Your task to perform on an android device: toggle location history Image 0: 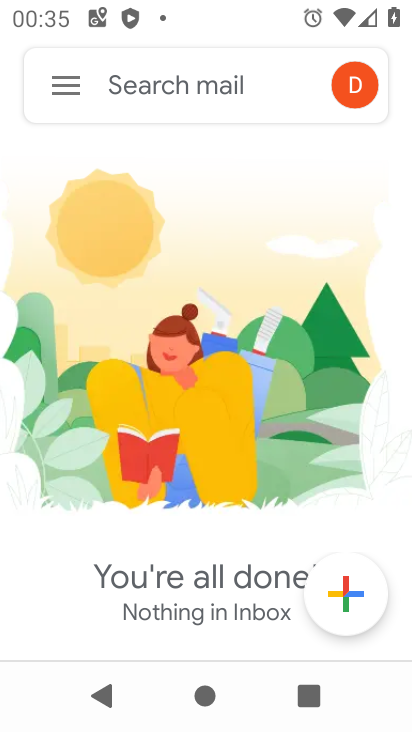
Step 0: press home button
Your task to perform on an android device: toggle location history Image 1: 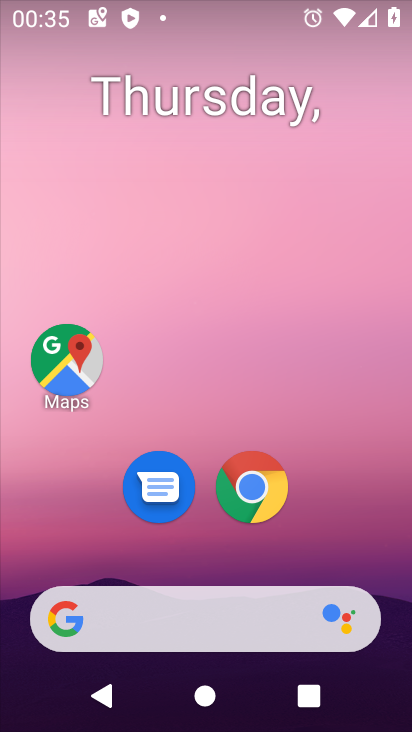
Step 1: click (69, 359)
Your task to perform on an android device: toggle location history Image 2: 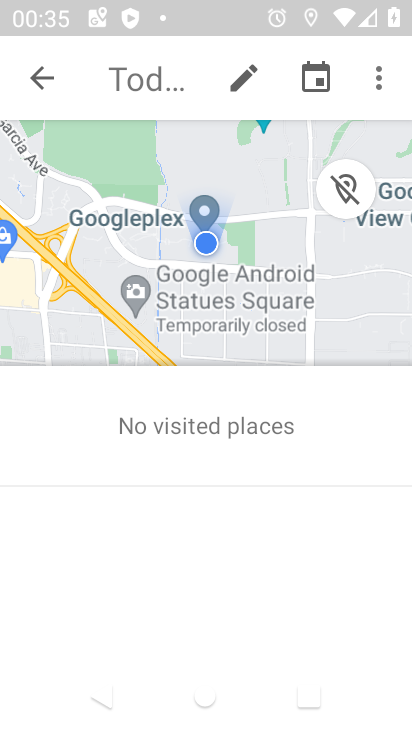
Step 2: click (375, 77)
Your task to perform on an android device: toggle location history Image 3: 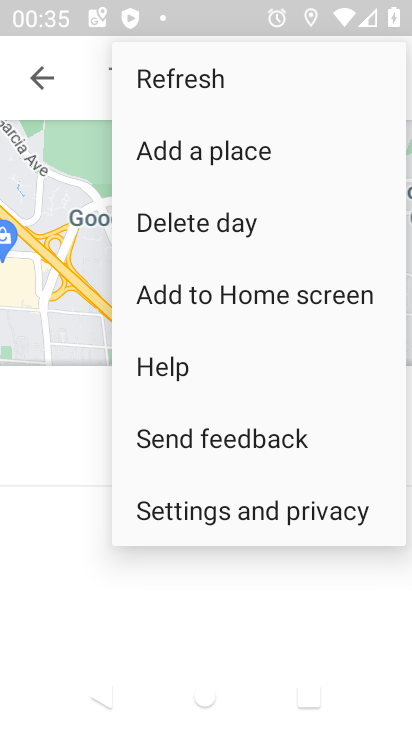
Step 3: click (167, 501)
Your task to perform on an android device: toggle location history Image 4: 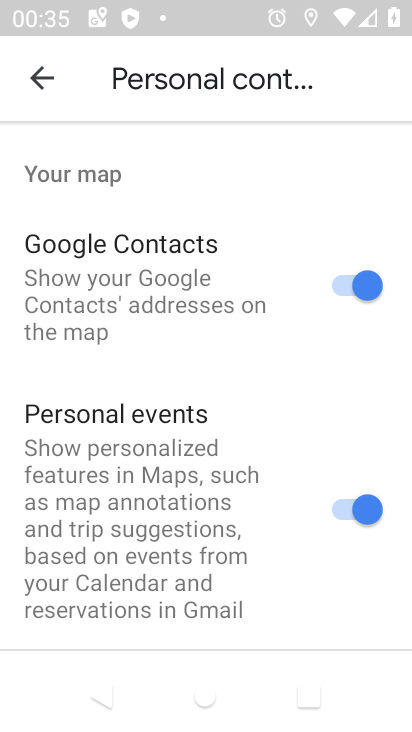
Step 4: drag from (167, 501) to (257, 59)
Your task to perform on an android device: toggle location history Image 5: 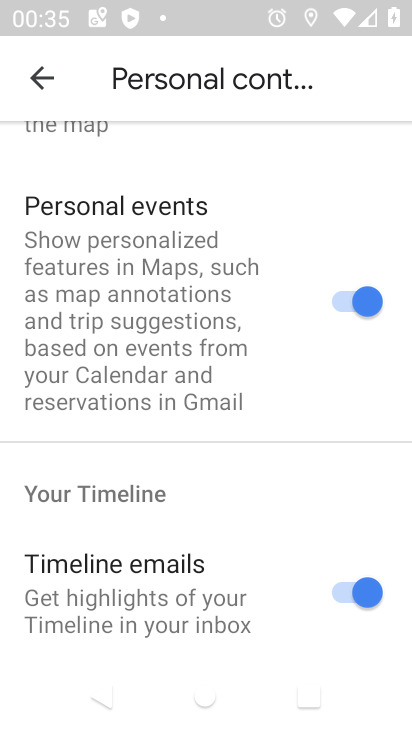
Step 5: drag from (272, 601) to (327, 0)
Your task to perform on an android device: toggle location history Image 6: 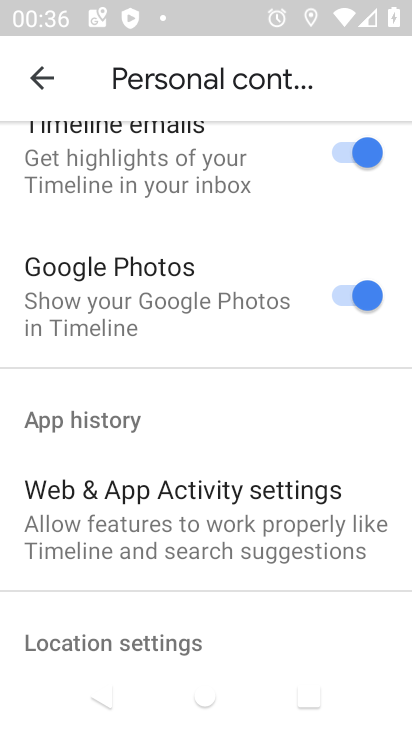
Step 6: drag from (356, 552) to (383, 3)
Your task to perform on an android device: toggle location history Image 7: 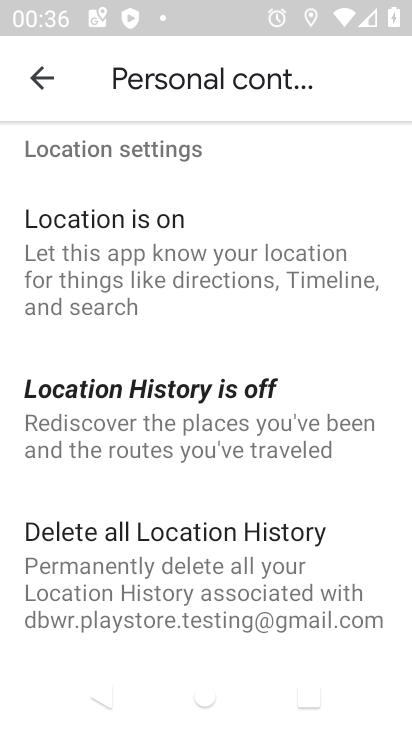
Step 7: click (139, 417)
Your task to perform on an android device: toggle location history Image 8: 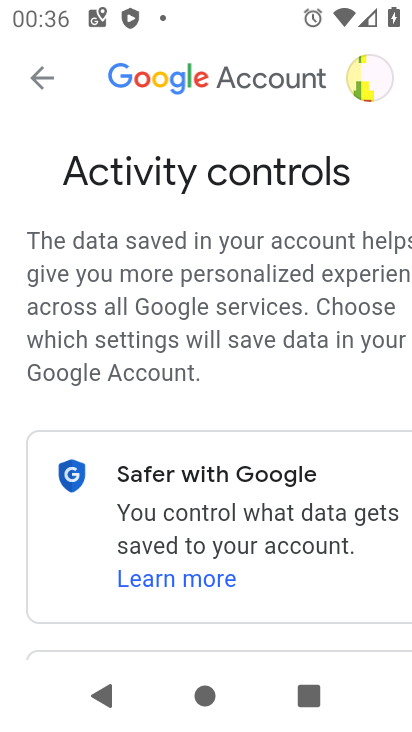
Step 8: drag from (177, 481) to (168, 165)
Your task to perform on an android device: toggle location history Image 9: 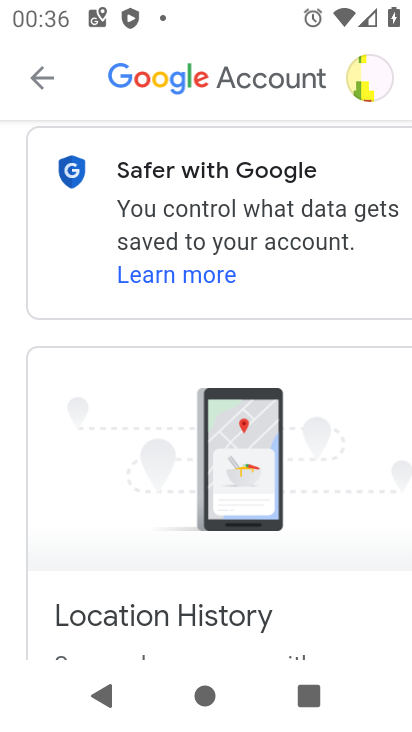
Step 9: drag from (171, 505) to (163, 69)
Your task to perform on an android device: toggle location history Image 10: 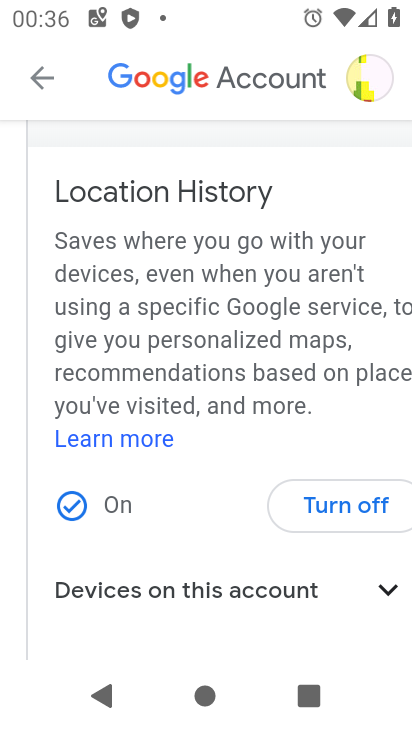
Step 10: drag from (173, 492) to (173, 219)
Your task to perform on an android device: toggle location history Image 11: 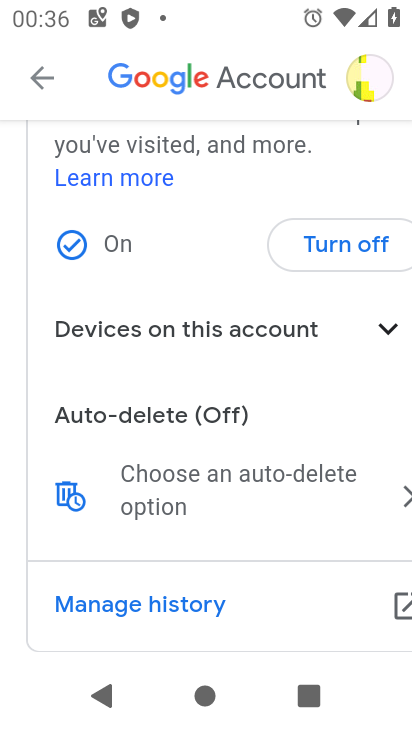
Step 11: click (343, 240)
Your task to perform on an android device: toggle location history Image 12: 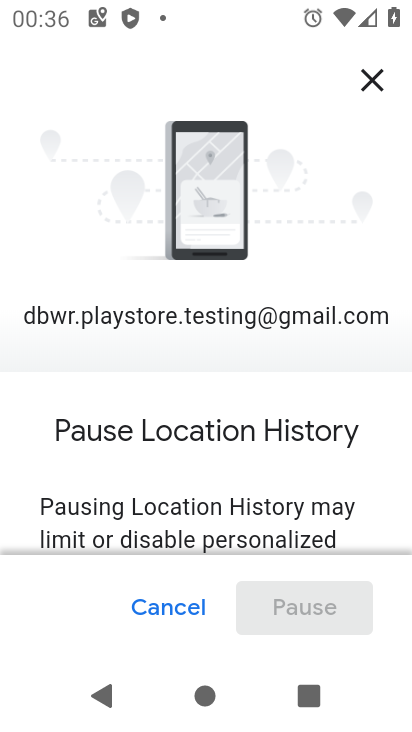
Step 12: drag from (307, 465) to (308, 317)
Your task to perform on an android device: toggle location history Image 13: 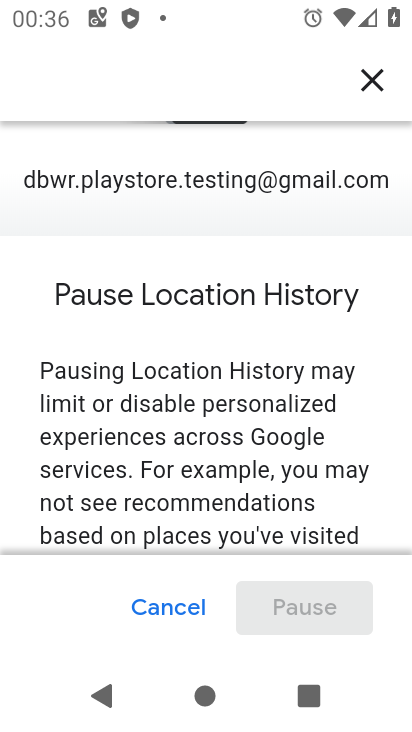
Step 13: drag from (303, 442) to (282, 147)
Your task to perform on an android device: toggle location history Image 14: 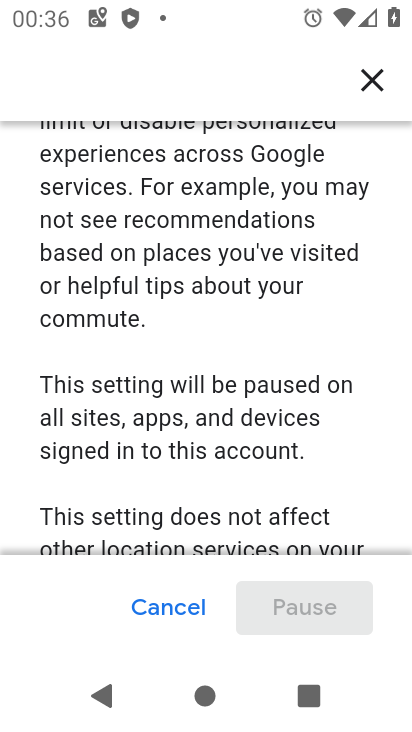
Step 14: drag from (191, 420) to (223, 111)
Your task to perform on an android device: toggle location history Image 15: 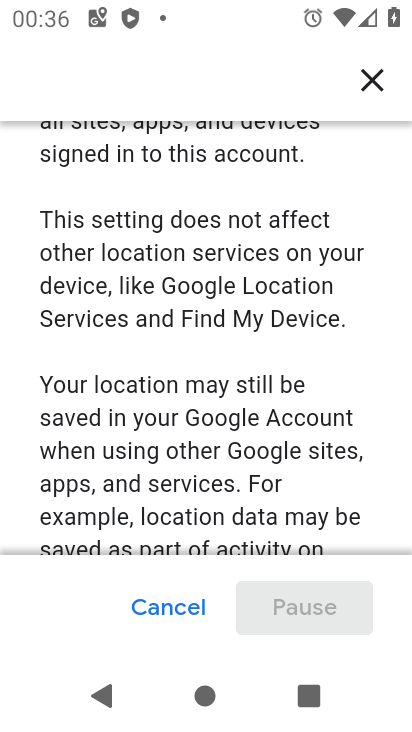
Step 15: drag from (199, 481) to (228, 153)
Your task to perform on an android device: toggle location history Image 16: 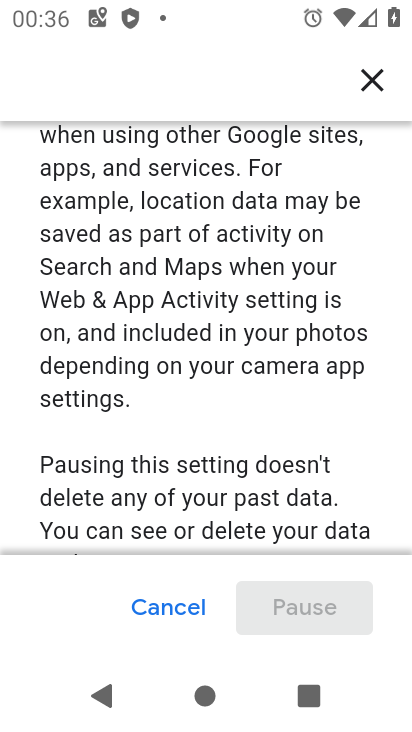
Step 16: drag from (187, 419) to (205, 308)
Your task to perform on an android device: toggle location history Image 17: 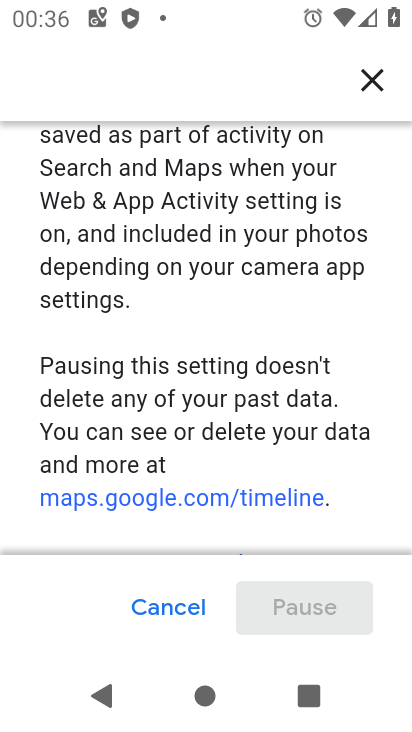
Step 17: drag from (194, 471) to (210, 182)
Your task to perform on an android device: toggle location history Image 18: 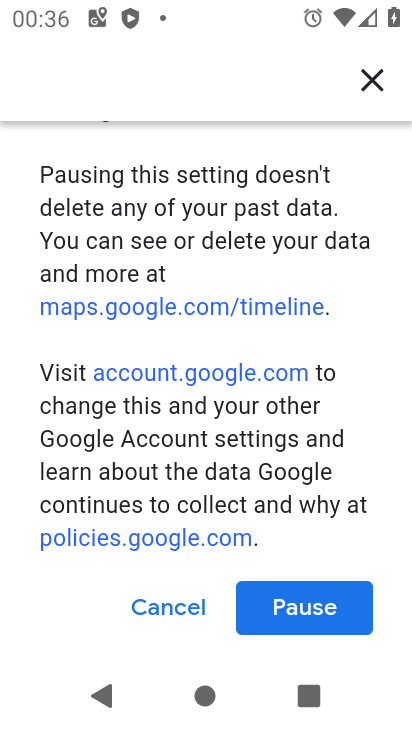
Step 18: drag from (237, 479) to (249, 233)
Your task to perform on an android device: toggle location history Image 19: 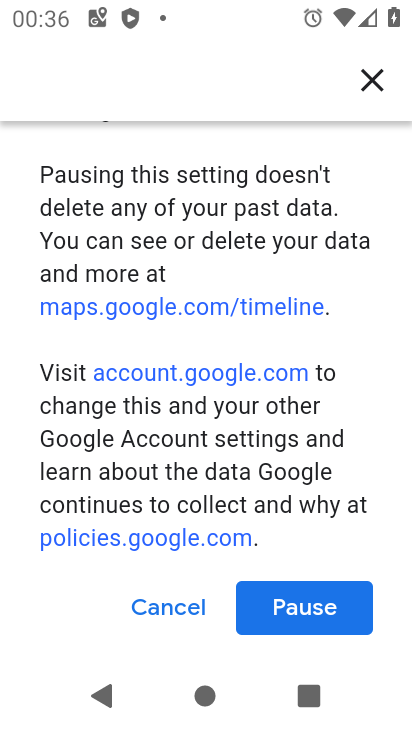
Step 19: click (301, 606)
Your task to perform on an android device: toggle location history Image 20: 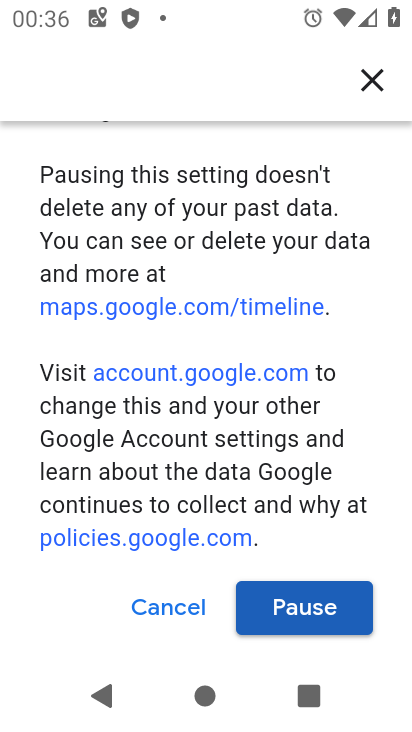
Step 20: click (331, 606)
Your task to perform on an android device: toggle location history Image 21: 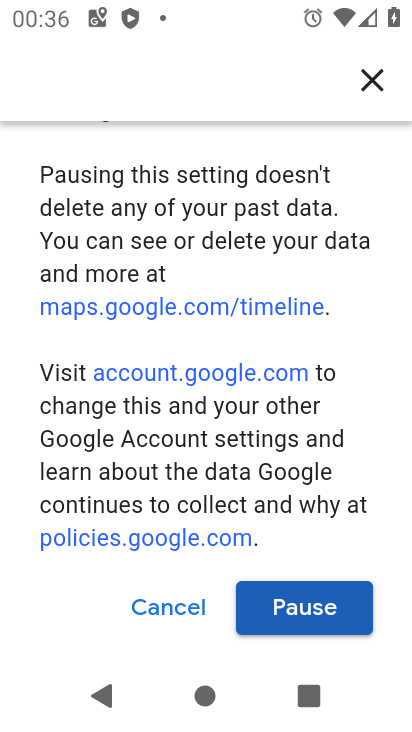
Step 21: click (286, 603)
Your task to perform on an android device: toggle location history Image 22: 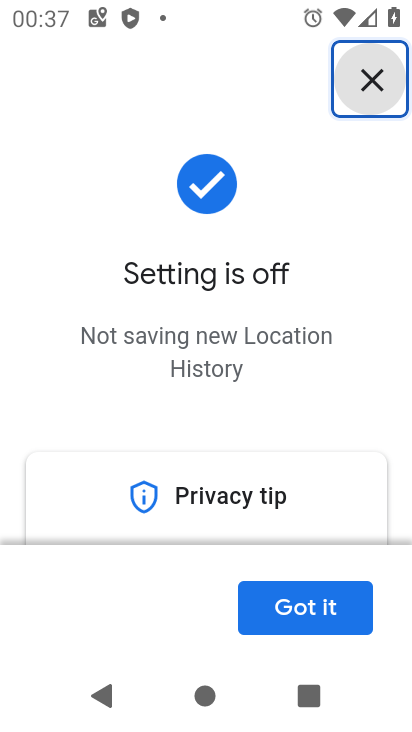
Step 22: click (328, 611)
Your task to perform on an android device: toggle location history Image 23: 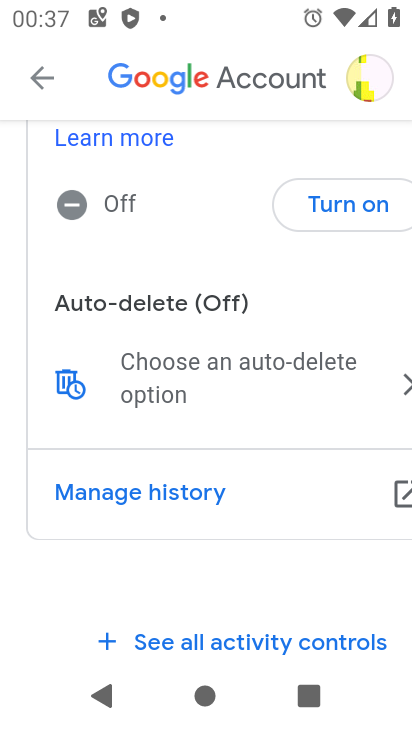
Step 23: task complete